Your task to perform on an android device: turn off wifi Image 0: 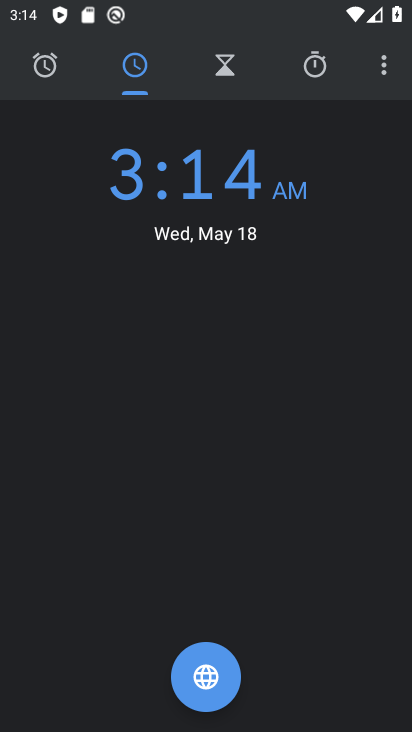
Step 0: press home button
Your task to perform on an android device: turn off wifi Image 1: 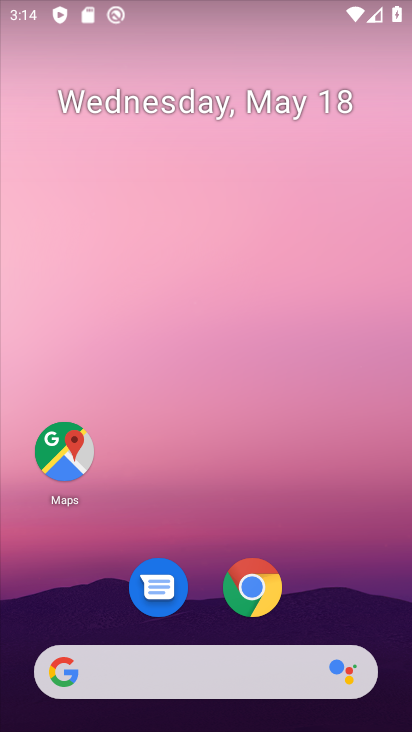
Step 1: drag from (152, 642) to (254, 172)
Your task to perform on an android device: turn off wifi Image 2: 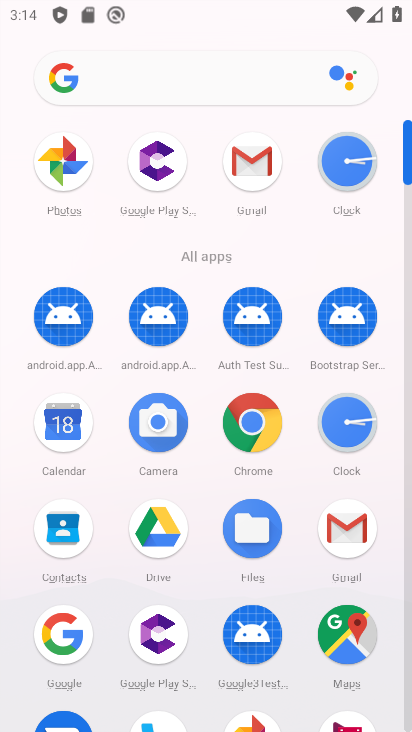
Step 2: drag from (204, 575) to (239, 6)
Your task to perform on an android device: turn off wifi Image 3: 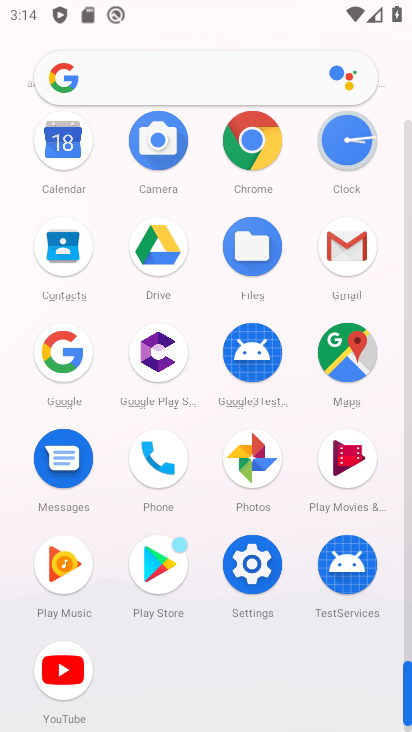
Step 3: click (243, 599)
Your task to perform on an android device: turn off wifi Image 4: 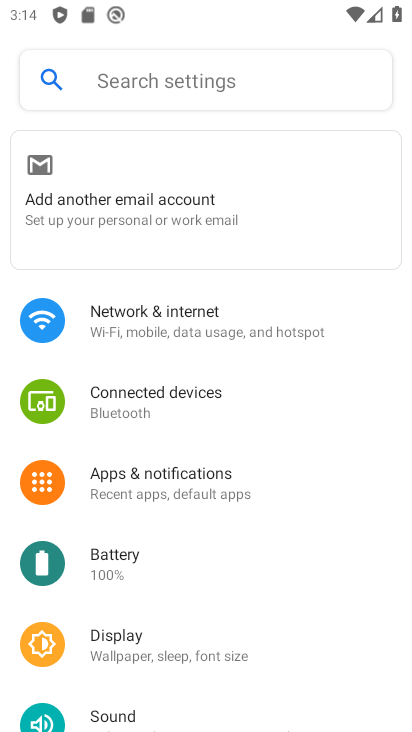
Step 4: click (195, 328)
Your task to perform on an android device: turn off wifi Image 5: 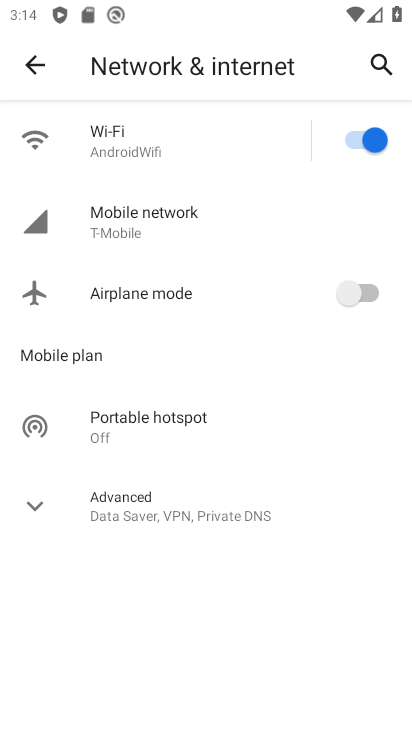
Step 5: click (359, 132)
Your task to perform on an android device: turn off wifi Image 6: 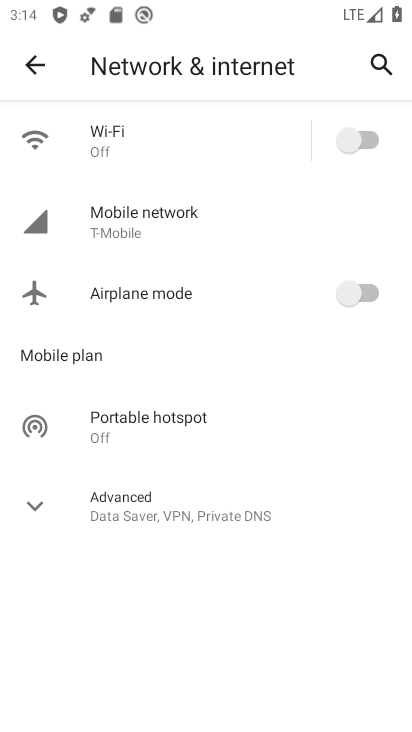
Step 6: task complete